Your task to perform on an android device: turn on priority inbox in the gmail app Image 0: 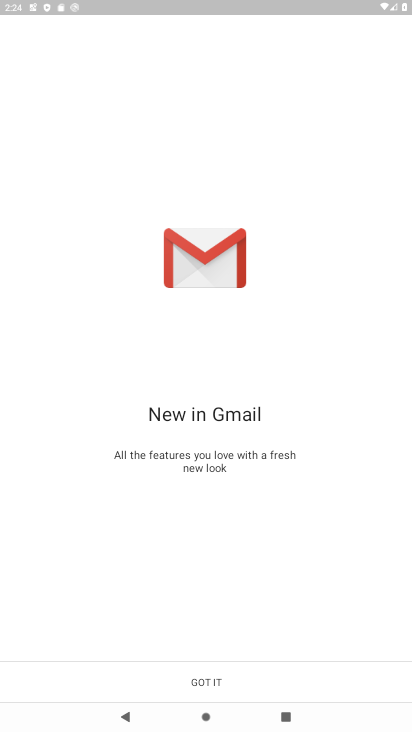
Step 0: click (214, 679)
Your task to perform on an android device: turn on priority inbox in the gmail app Image 1: 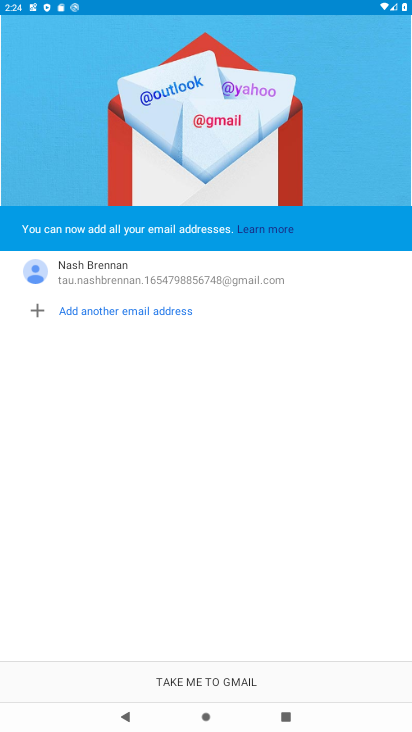
Step 1: click (214, 679)
Your task to perform on an android device: turn on priority inbox in the gmail app Image 2: 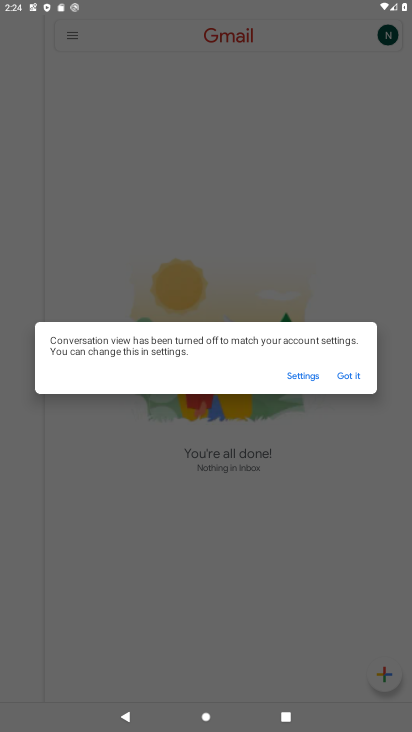
Step 2: click (302, 378)
Your task to perform on an android device: turn on priority inbox in the gmail app Image 3: 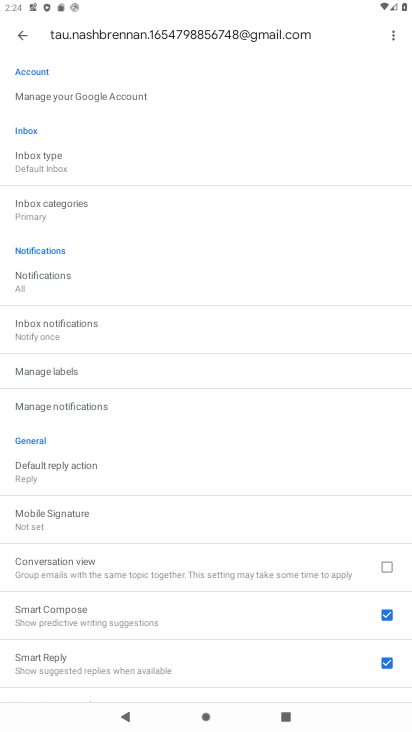
Step 3: click (58, 164)
Your task to perform on an android device: turn on priority inbox in the gmail app Image 4: 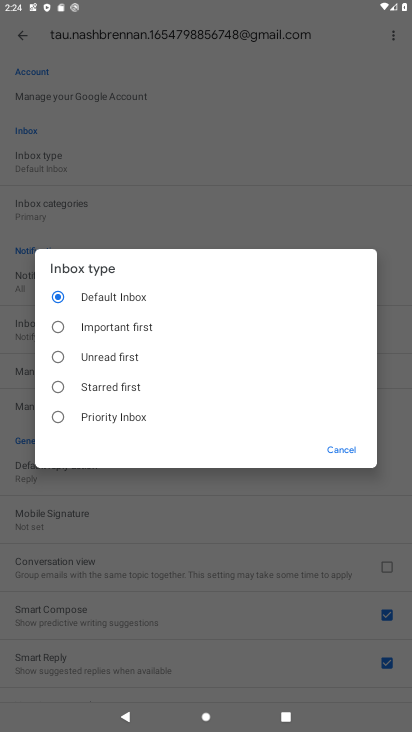
Step 4: click (56, 420)
Your task to perform on an android device: turn on priority inbox in the gmail app Image 5: 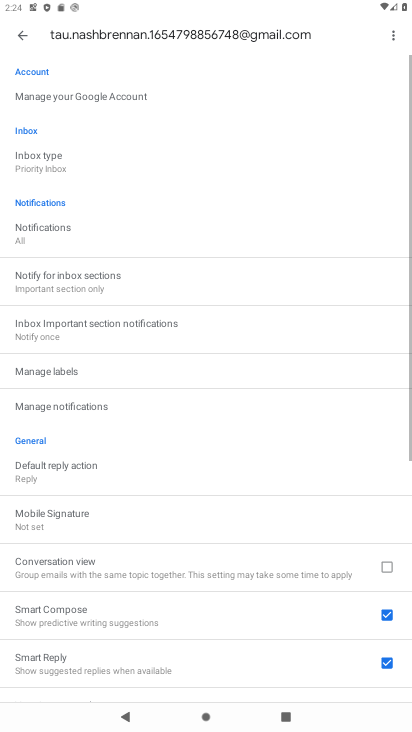
Step 5: task complete